Your task to perform on an android device: What's on my calendar today? Image 0: 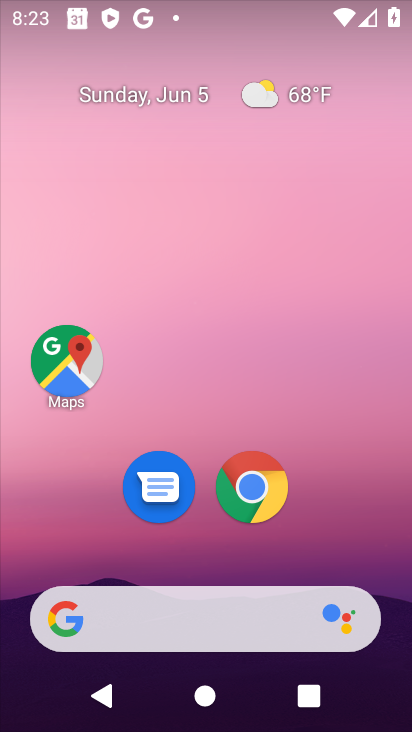
Step 0: drag from (190, 533) to (251, 88)
Your task to perform on an android device: What's on my calendar today? Image 1: 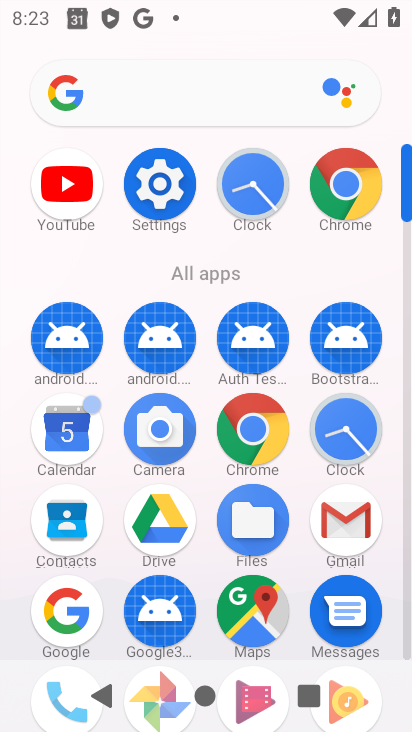
Step 1: click (62, 438)
Your task to perform on an android device: What's on my calendar today? Image 2: 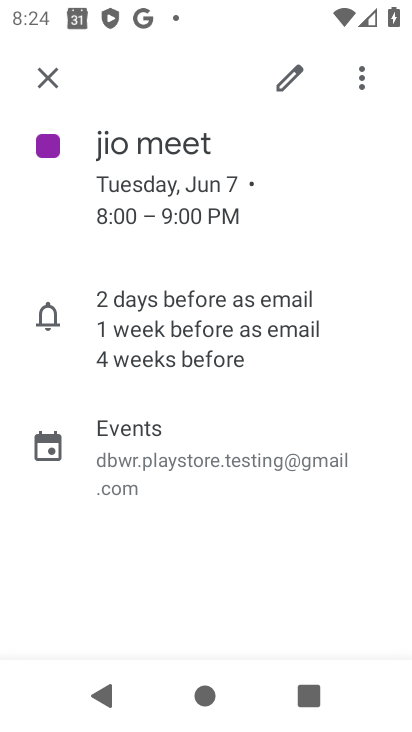
Step 2: click (51, 74)
Your task to perform on an android device: What's on my calendar today? Image 3: 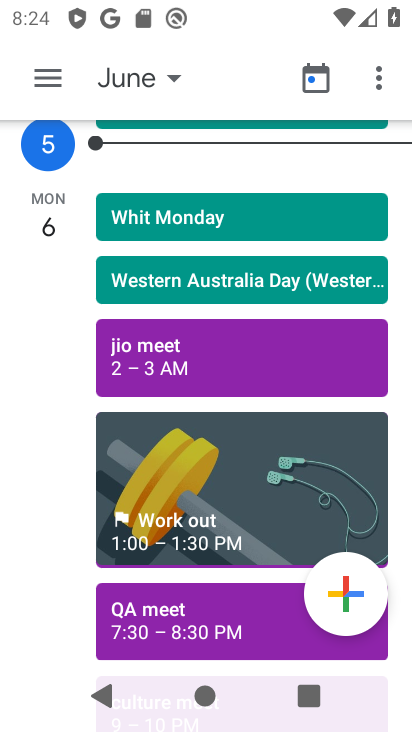
Step 3: click (198, 224)
Your task to perform on an android device: What's on my calendar today? Image 4: 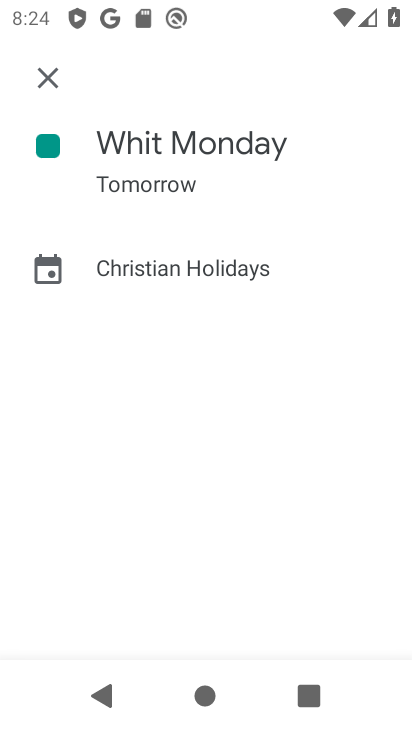
Step 4: task complete